Your task to perform on an android device: move an email to a new category in the gmail app Image 0: 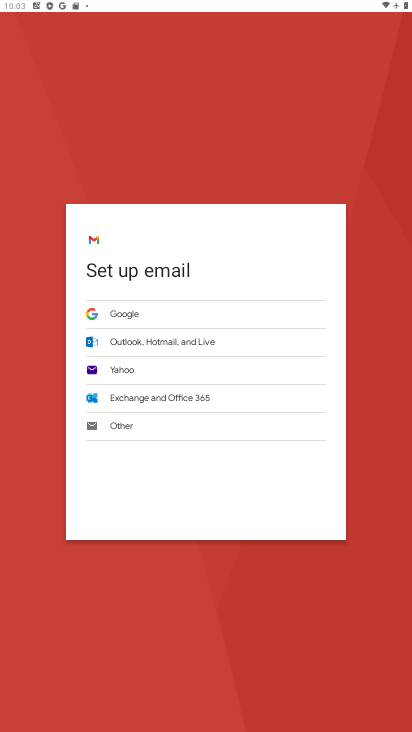
Step 0: task complete